Your task to perform on an android device: turn off data saver in the chrome app Image 0: 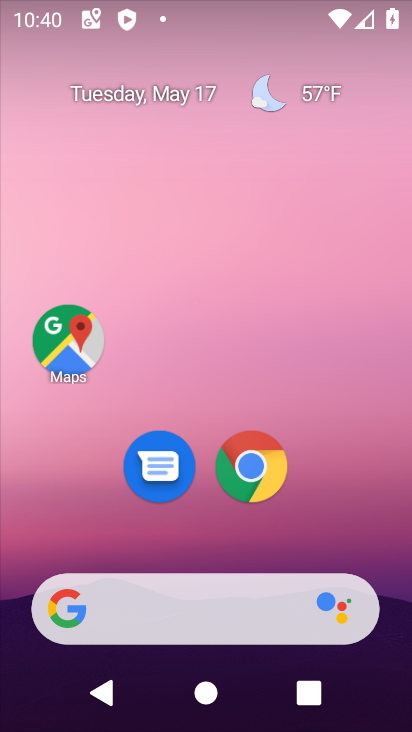
Step 0: drag from (205, 530) to (237, 15)
Your task to perform on an android device: turn off data saver in the chrome app Image 1: 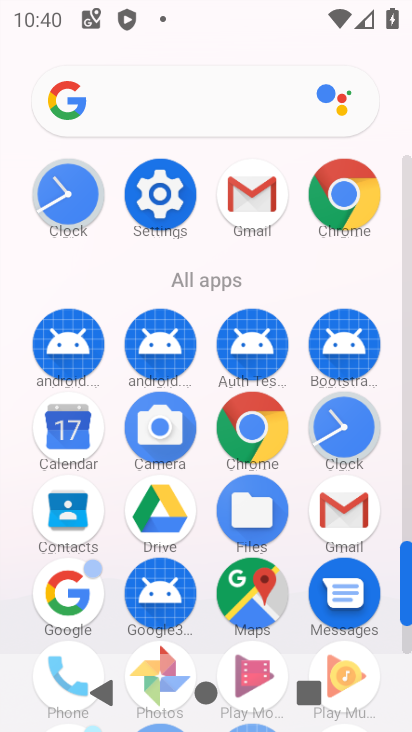
Step 1: click (275, 432)
Your task to perform on an android device: turn off data saver in the chrome app Image 2: 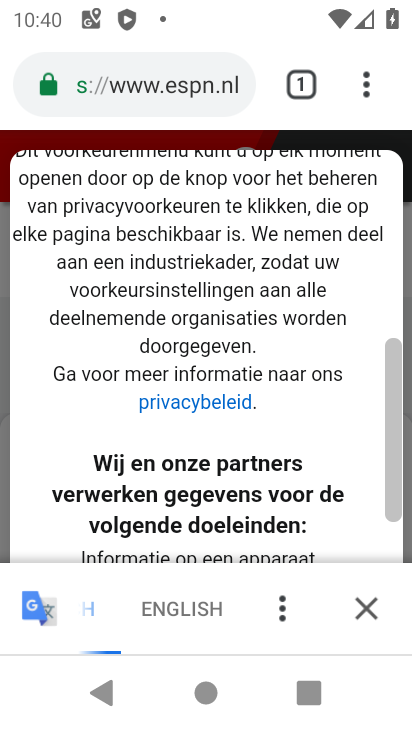
Step 2: click (371, 82)
Your task to perform on an android device: turn off data saver in the chrome app Image 3: 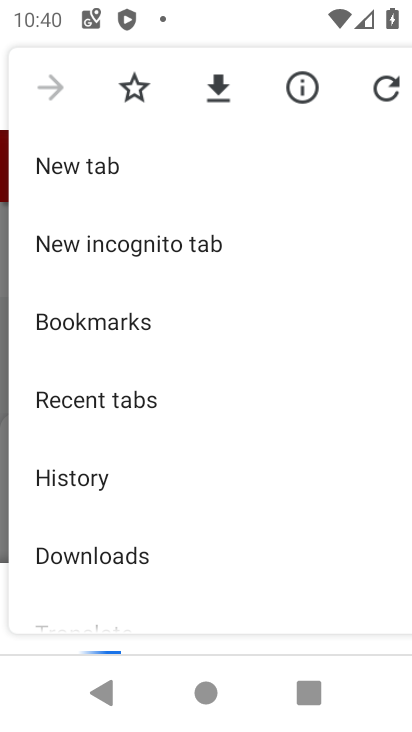
Step 3: drag from (170, 471) to (137, 220)
Your task to perform on an android device: turn off data saver in the chrome app Image 4: 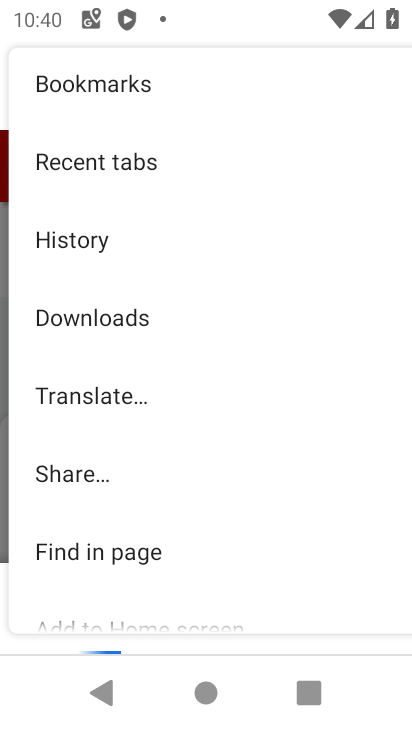
Step 4: drag from (149, 560) to (72, 160)
Your task to perform on an android device: turn off data saver in the chrome app Image 5: 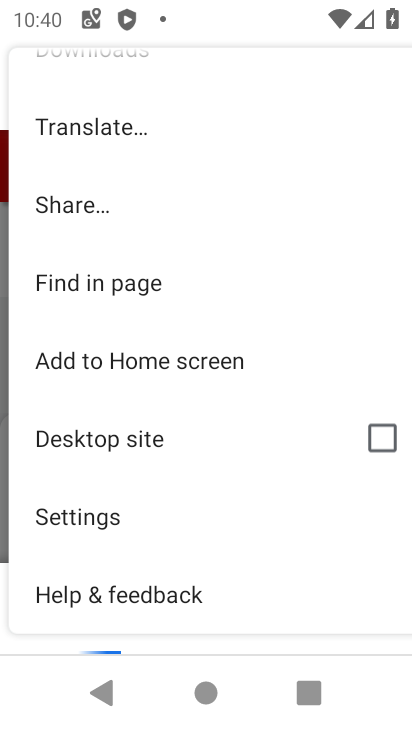
Step 5: click (77, 534)
Your task to perform on an android device: turn off data saver in the chrome app Image 6: 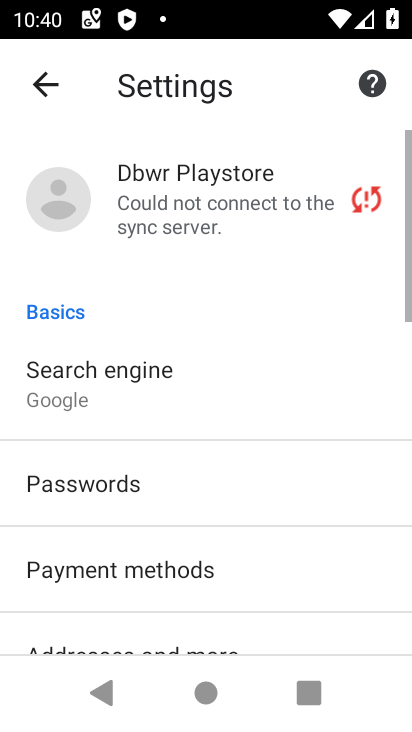
Step 6: drag from (201, 538) to (151, 81)
Your task to perform on an android device: turn off data saver in the chrome app Image 7: 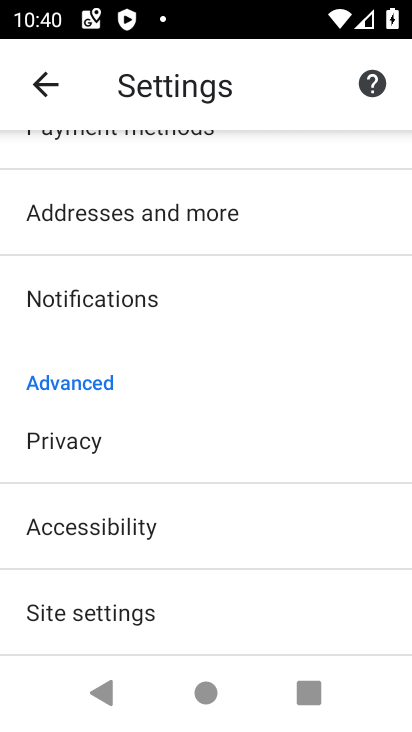
Step 7: drag from (127, 575) to (118, 257)
Your task to perform on an android device: turn off data saver in the chrome app Image 8: 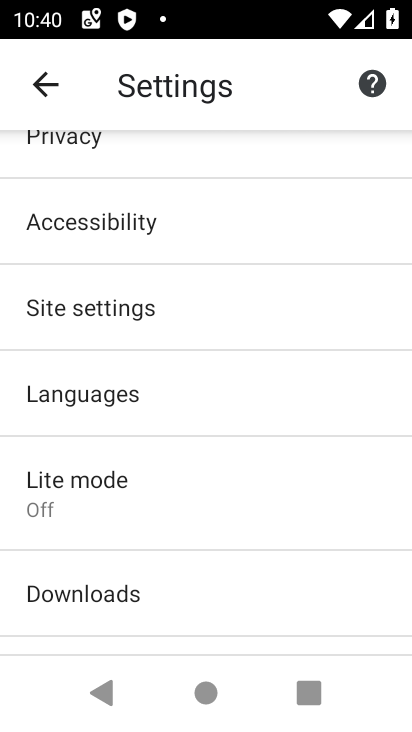
Step 8: click (127, 486)
Your task to perform on an android device: turn off data saver in the chrome app Image 9: 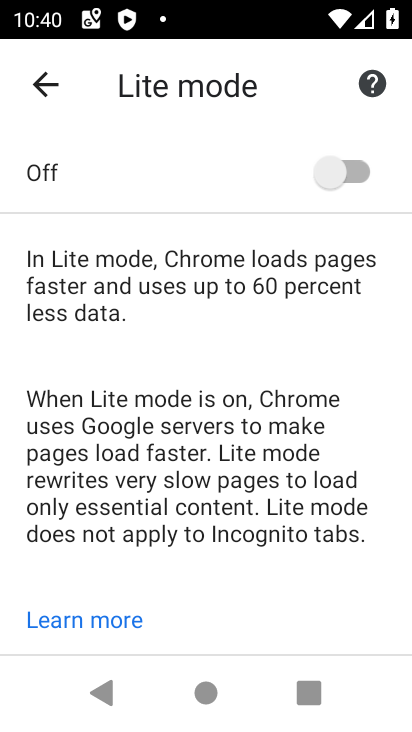
Step 9: task complete